Your task to perform on an android device: toggle improve location accuracy Image 0: 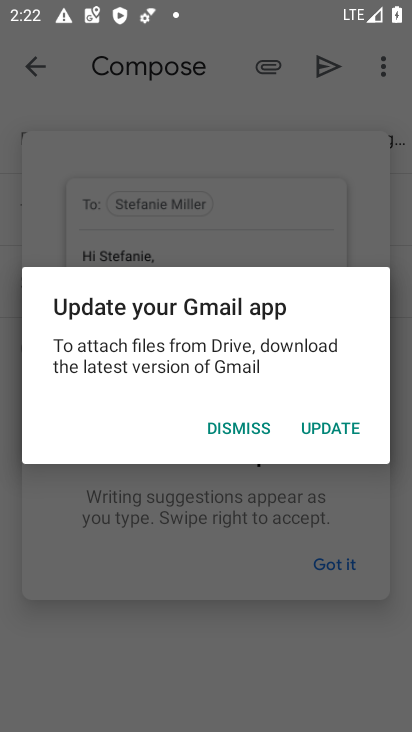
Step 0: press home button
Your task to perform on an android device: toggle improve location accuracy Image 1: 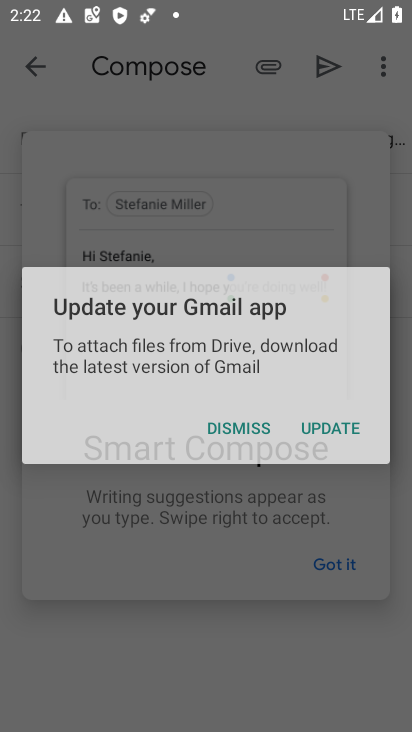
Step 1: press home button
Your task to perform on an android device: toggle improve location accuracy Image 2: 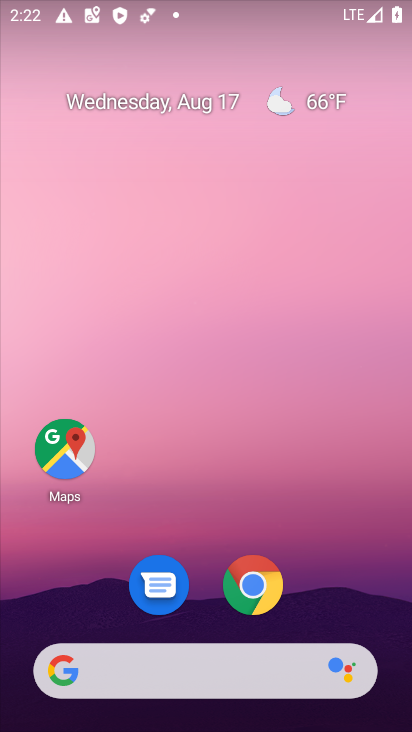
Step 2: drag from (251, 539) to (279, 58)
Your task to perform on an android device: toggle improve location accuracy Image 3: 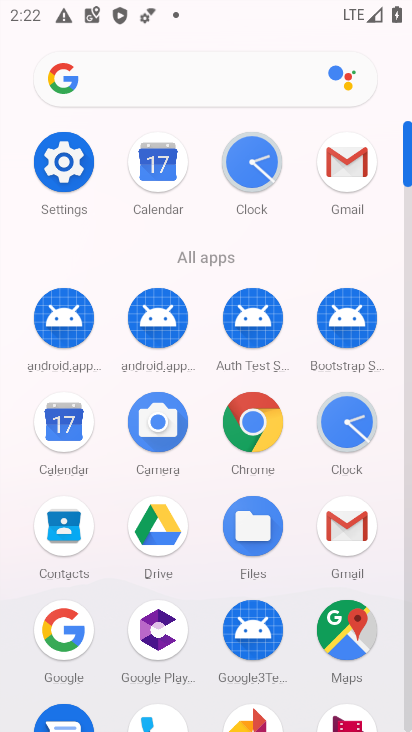
Step 3: click (68, 167)
Your task to perform on an android device: toggle improve location accuracy Image 4: 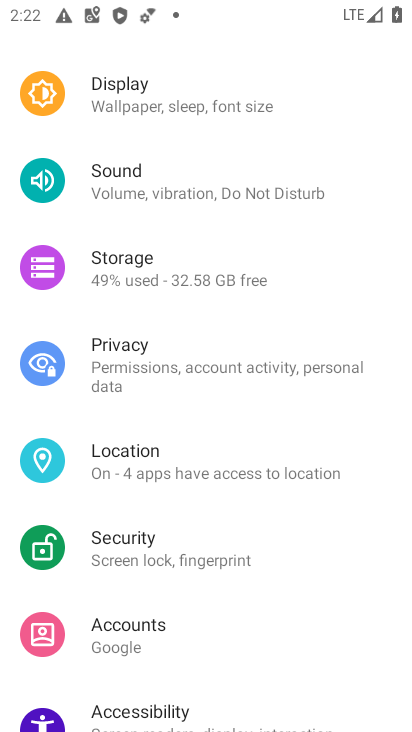
Step 4: click (229, 462)
Your task to perform on an android device: toggle improve location accuracy Image 5: 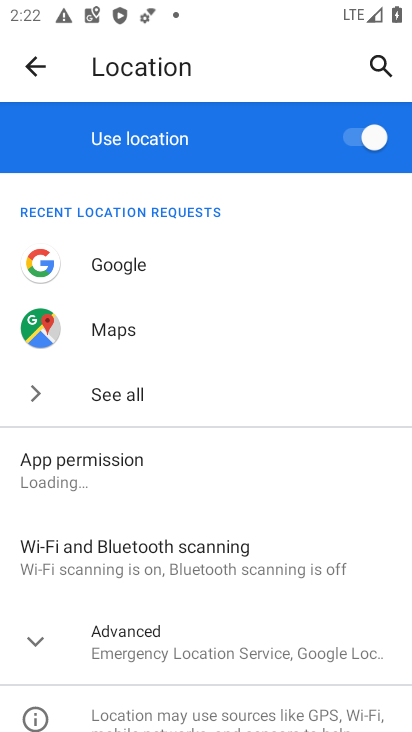
Step 5: click (39, 637)
Your task to perform on an android device: toggle improve location accuracy Image 6: 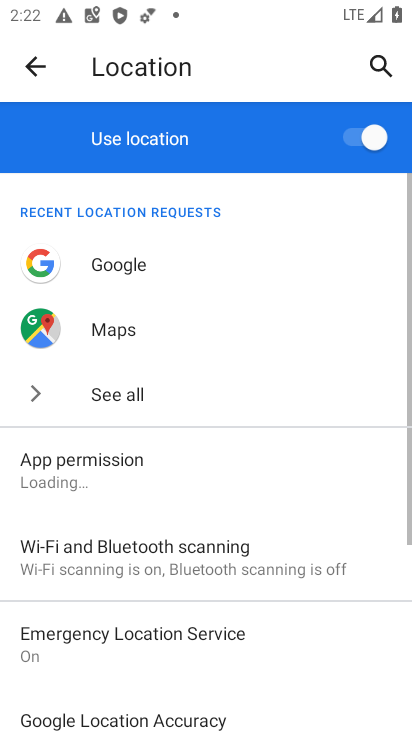
Step 6: drag from (213, 552) to (308, 87)
Your task to perform on an android device: toggle improve location accuracy Image 7: 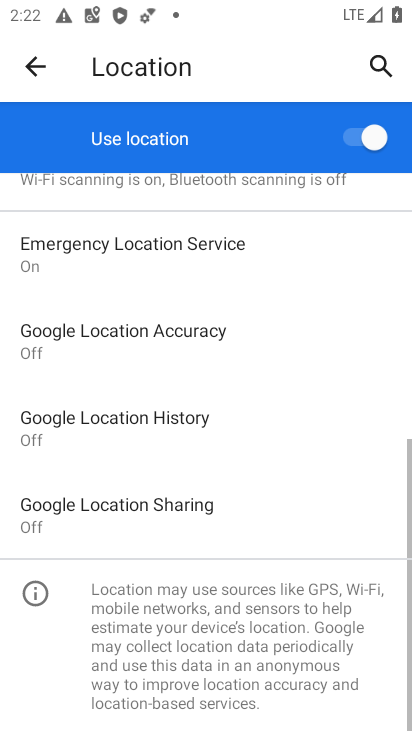
Step 7: click (213, 336)
Your task to perform on an android device: toggle improve location accuracy Image 8: 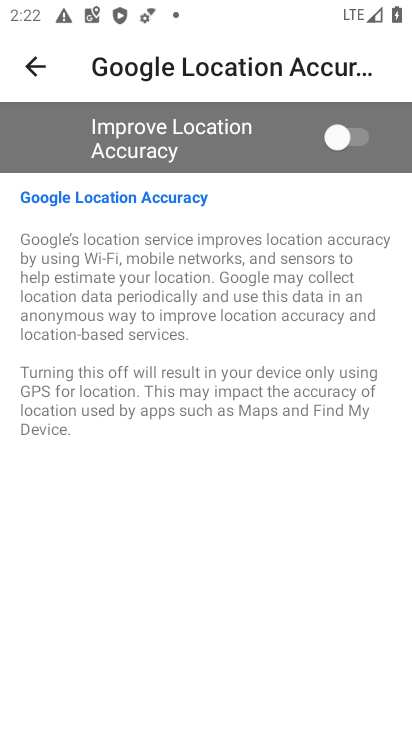
Step 8: click (350, 133)
Your task to perform on an android device: toggle improve location accuracy Image 9: 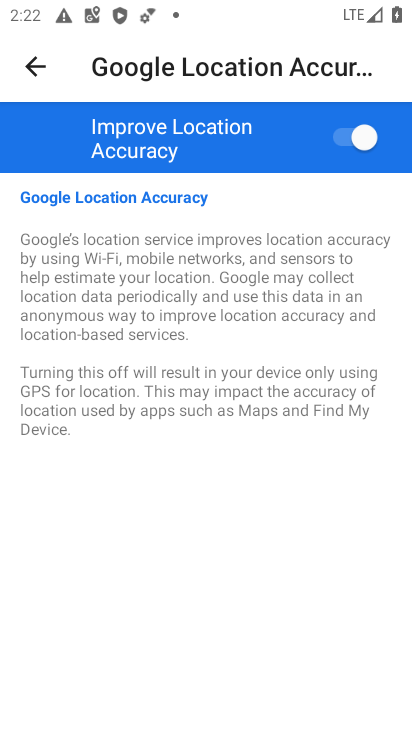
Step 9: task complete